Your task to perform on an android device: Go to notification settings Image 0: 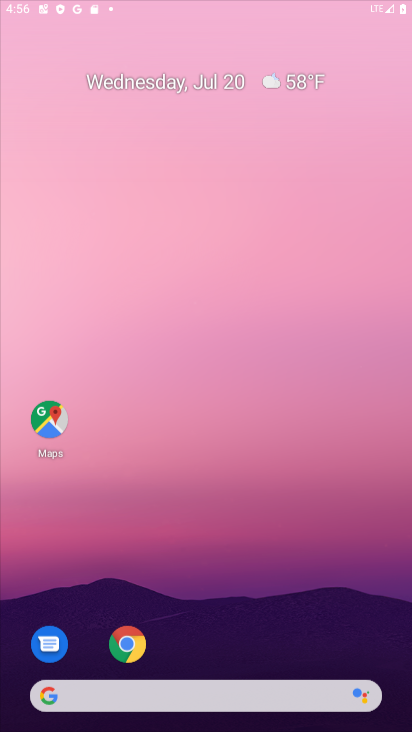
Step 0: press home button
Your task to perform on an android device: Go to notification settings Image 1: 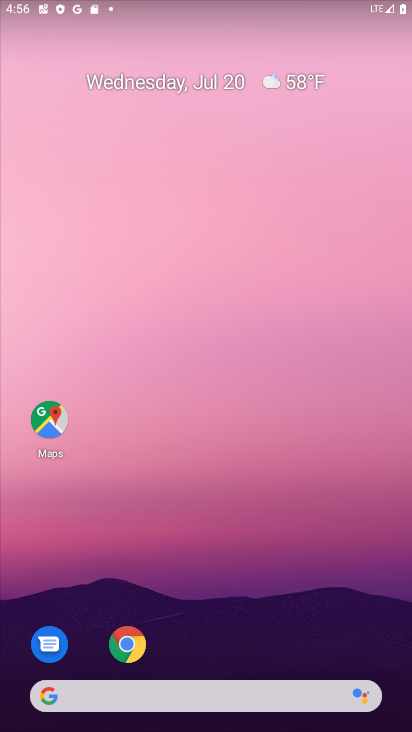
Step 1: drag from (238, 656) to (349, 64)
Your task to perform on an android device: Go to notification settings Image 2: 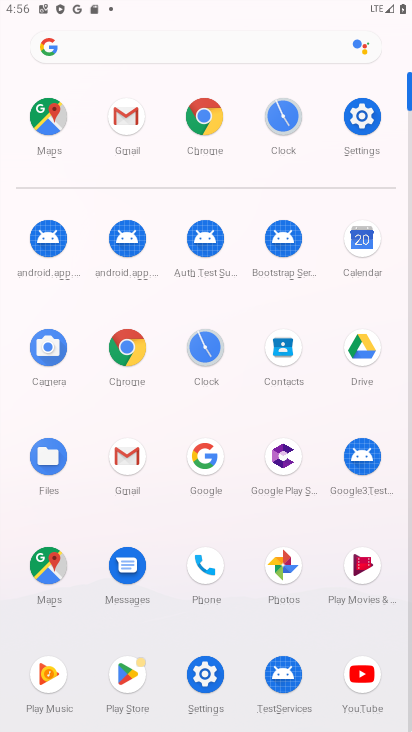
Step 2: click (353, 127)
Your task to perform on an android device: Go to notification settings Image 3: 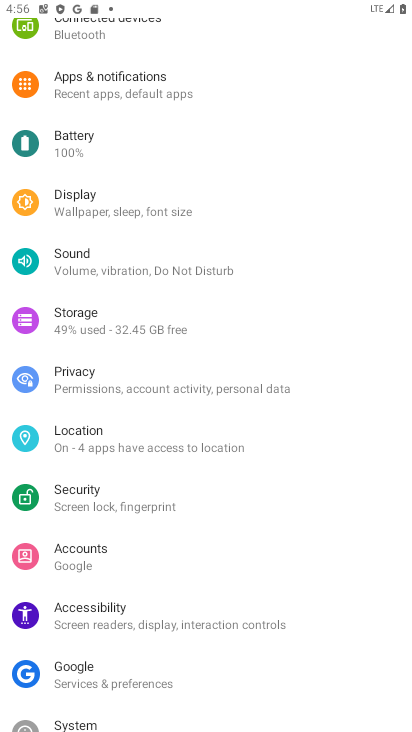
Step 3: click (100, 77)
Your task to perform on an android device: Go to notification settings Image 4: 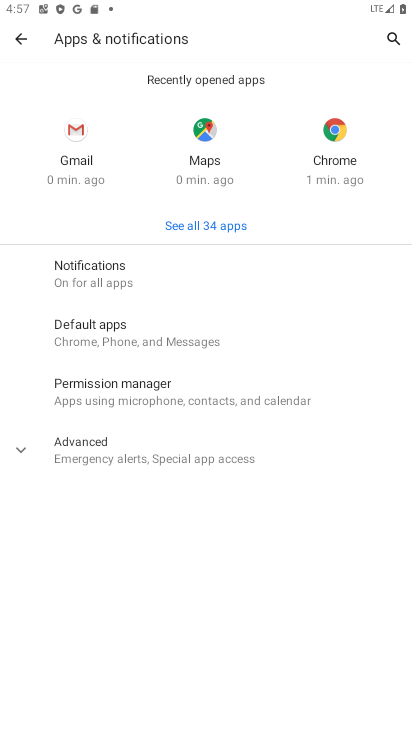
Step 4: click (96, 284)
Your task to perform on an android device: Go to notification settings Image 5: 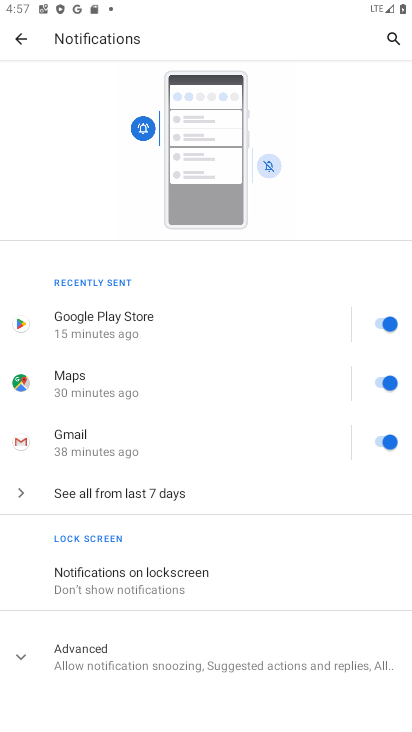
Step 5: task complete